Your task to perform on an android device: search for starred emails in the gmail app Image 0: 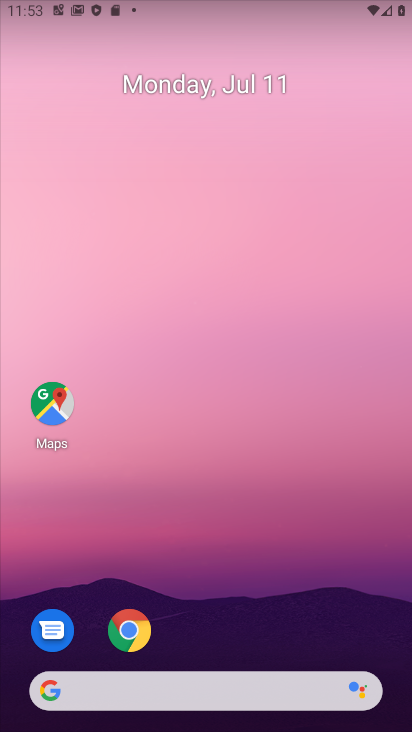
Step 0: click (344, 155)
Your task to perform on an android device: search for starred emails in the gmail app Image 1: 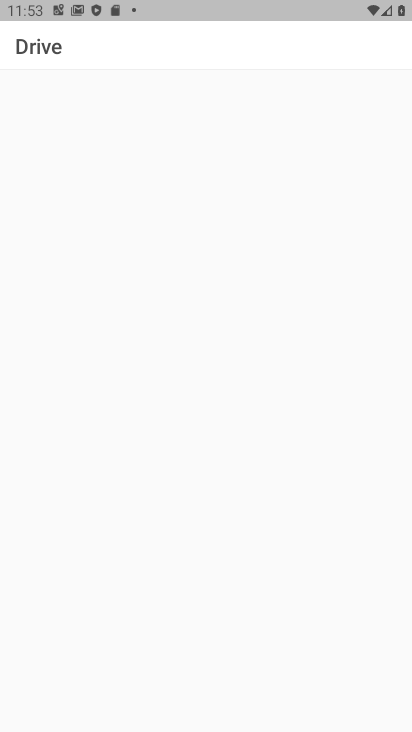
Step 1: press home button
Your task to perform on an android device: search for starred emails in the gmail app Image 2: 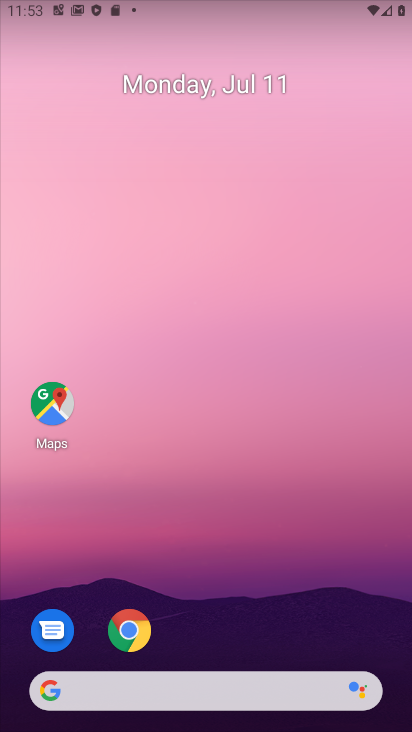
Step 2: drag from (205, 650) to (349, 81)
Your task to perform on an android device: search for starred emails in the gmail app Image 3: 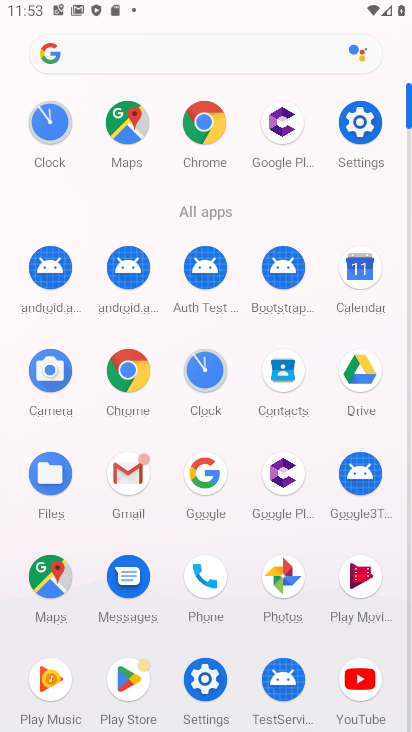
Step 3: click (114, 475)
Your task to perform on an android device: search for starred emails in the gmail app Image 4: 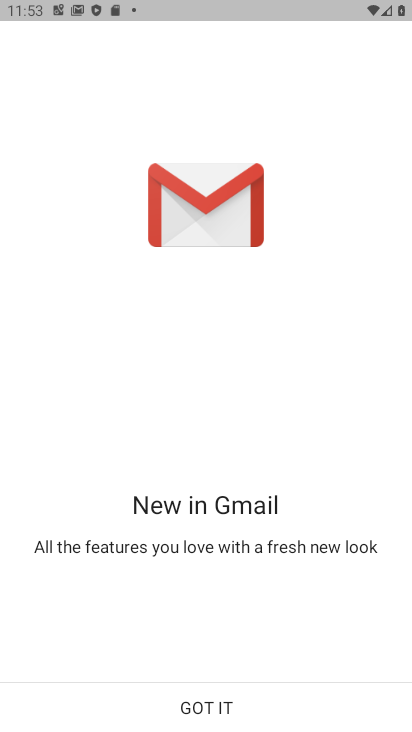
Step 4: click (237, 696)
Your task to perform on an android device: search for starred emails in the gmail app Image 5: 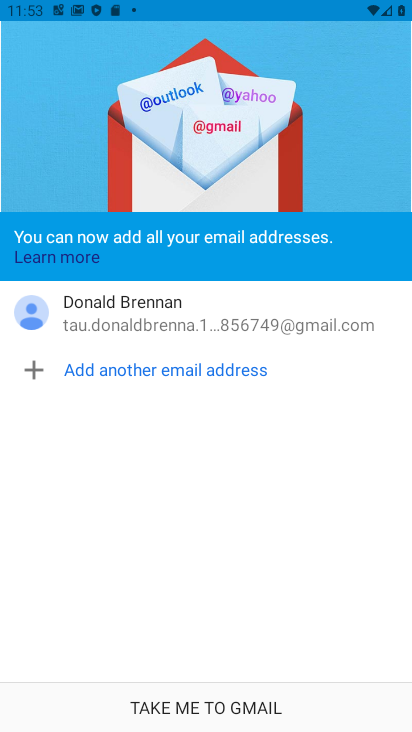
Step 5: click (237, 696)
Your task to perform on an android device: search for starred emails in the gmail app Image 6: 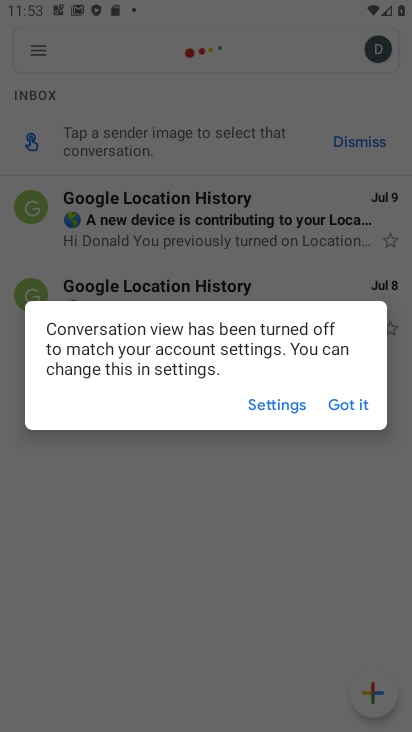
Step 6: click (346, 415)
Your task to perform on an android device: search for starred emails in the gmail app Image 7: 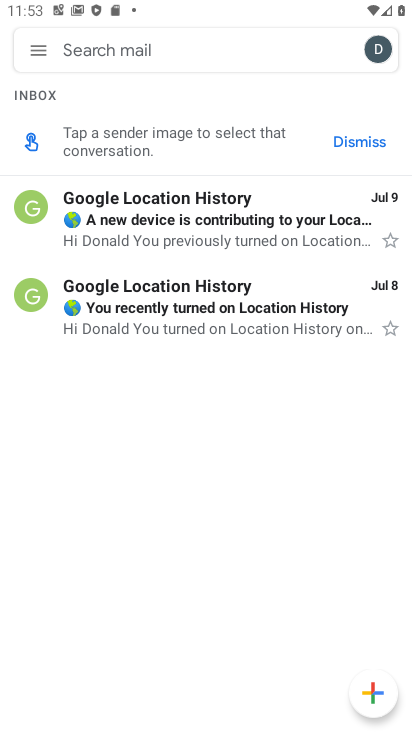
Step 7: click (44, 50)
Your task to perform on an android device: search for starred emails in the gmail app Image 8: 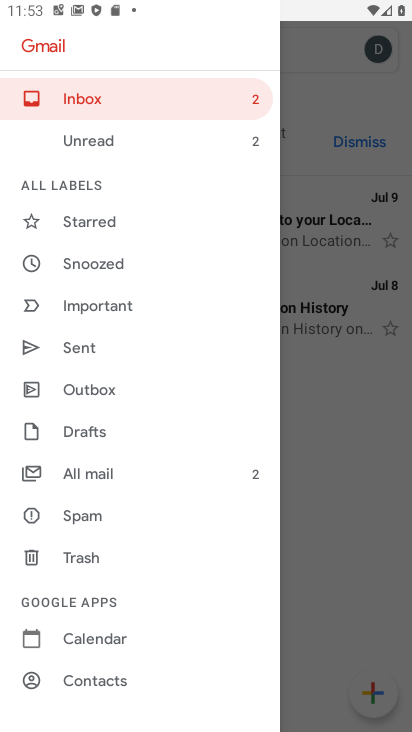
Step 8: click (142, 227)
Your task to perform on an android device: search for starred emails in the gmail app Image 9: 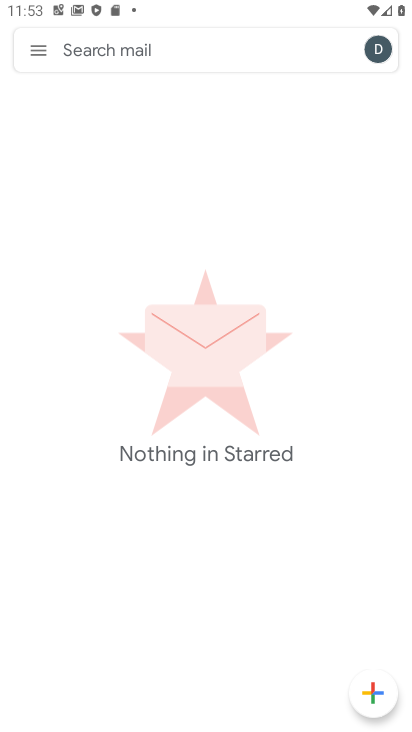
Step 9: task complete